Your task to perform on an android device: turn notification dots on Image 0: 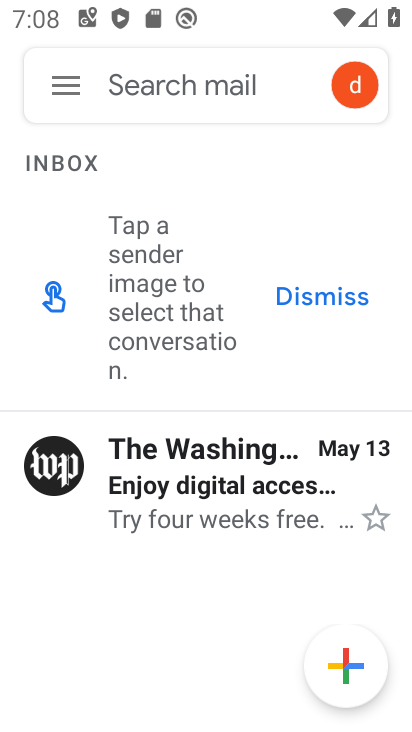
Step 0: press home button
Your task to perform on an android device: turn notification dots on Image 1: 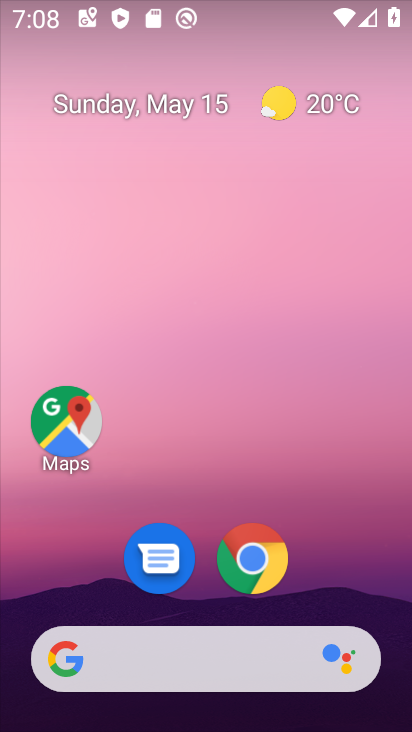
Step 1: drag from (189, 454) to (123, 50)
Your task to perform on an android device: turn notification dots on Image 2: 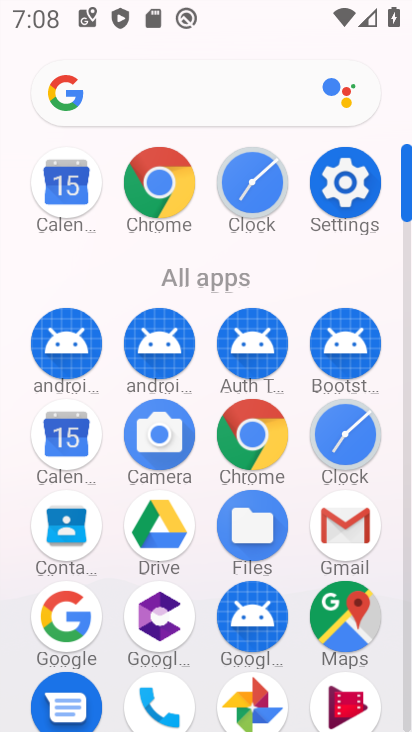
Step 2: click (348, 179)
Your task to perform on an android device: turn notification dots on Image 3: 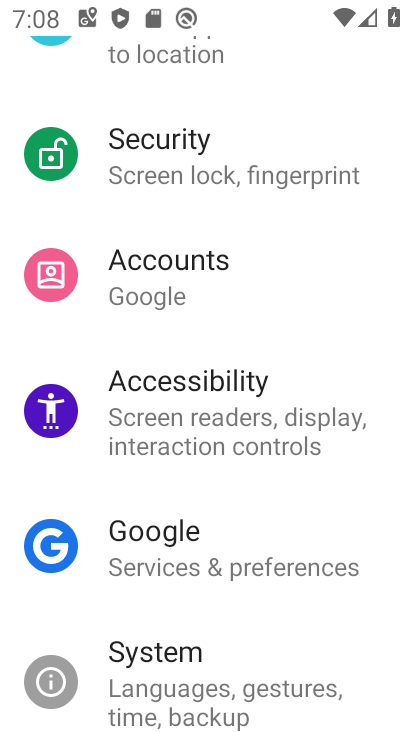
Step 3: drag from (237, 321) to (202, 731)
Your task to perform on an android device: turn notification dots on Image 4: 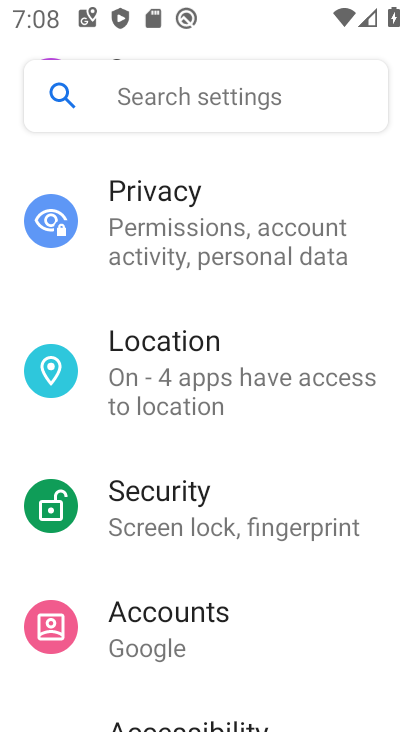
Step 4: drag from (161, 303) to (131, 603)
Your task to perform on an android device: turn notification dots on Image 5: 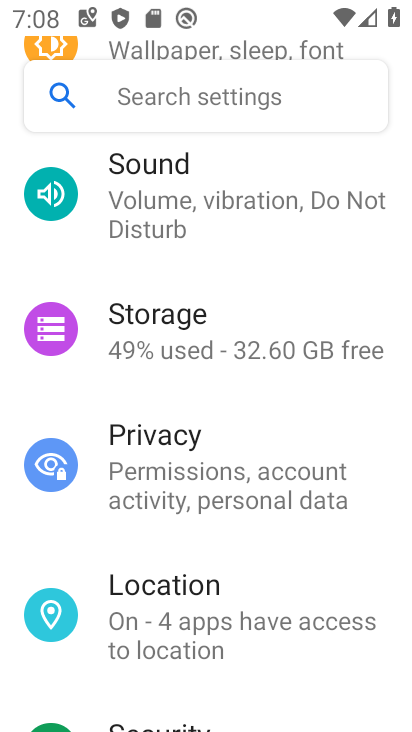
Step 5: drag from (171, 275) to (226, 723)
Your task to perform on an android device: turn notification dots on Image 6: 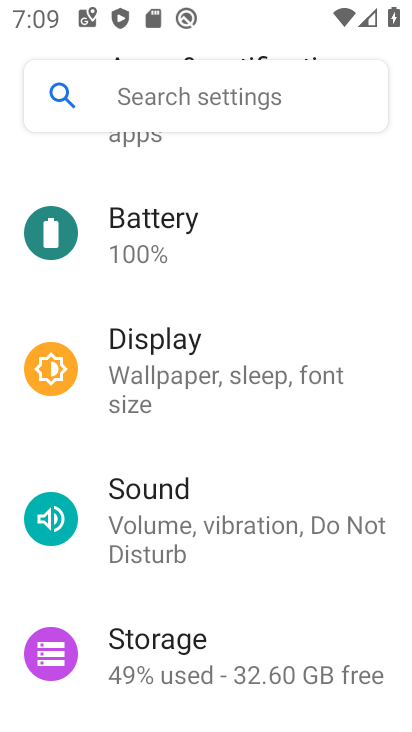
Step 6: drag from (147, 291) to (177, 730)
Your task to perform on an android device: turn notification dots on Image 7: 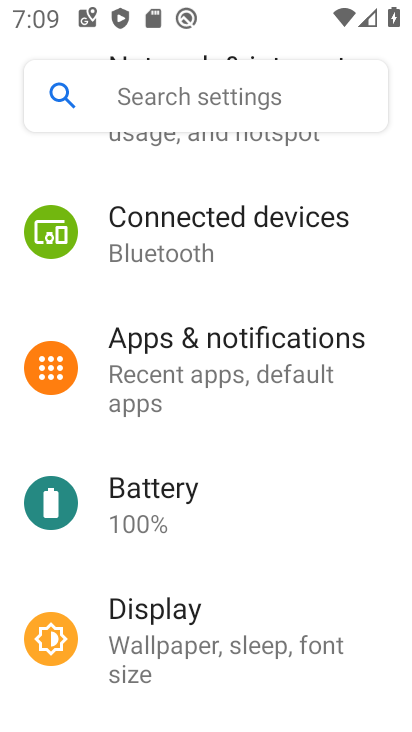
Step 7: click (228, 340)
Your task to perform on an android device: turn notification dots on Image 8: 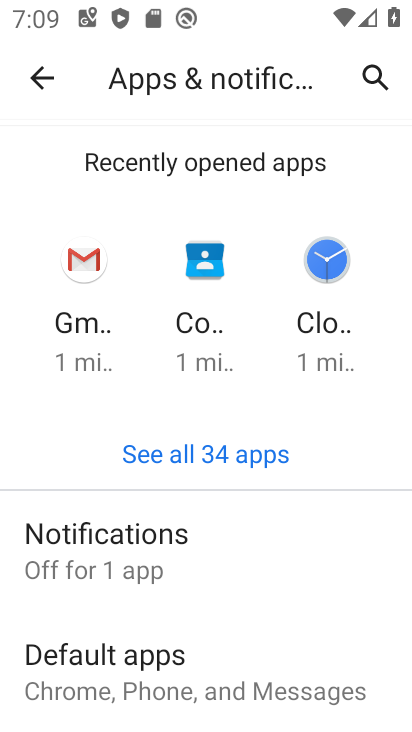
Step 8: drag from (247, 541) to (213, 310)
Your task to perform on an android device: turn notification dots on Image 9: 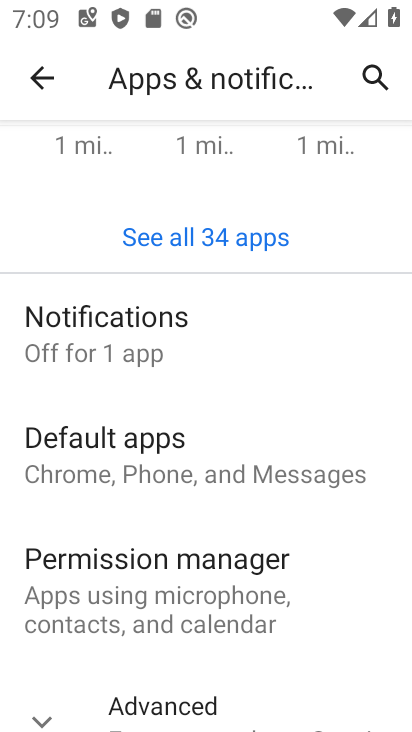
Step 9: click (108, 316)
Your task to perform on an android device: turn notification dots on Image 10: 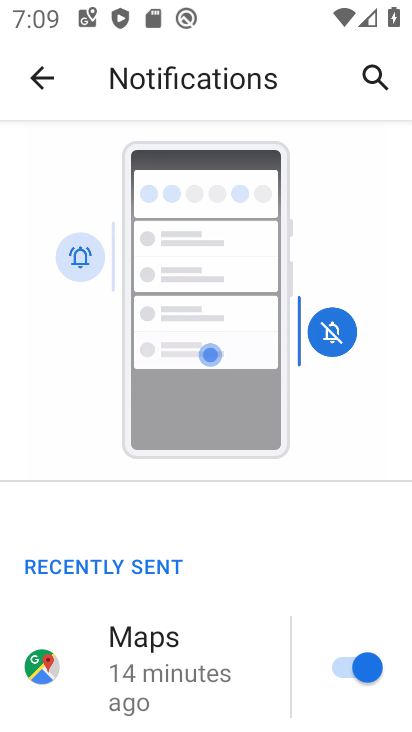
Step 10: drag from (203, 564) to (123, 200)
Your task to perform on an android device: turn notification dots on Image 11: 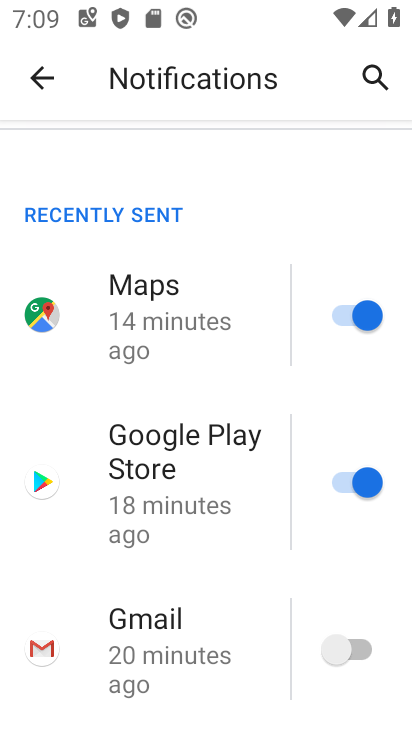
Step 11: drag from (249, 552) to (217, 265)
Your task to perform on an android device: turn notification dots on Image 12: 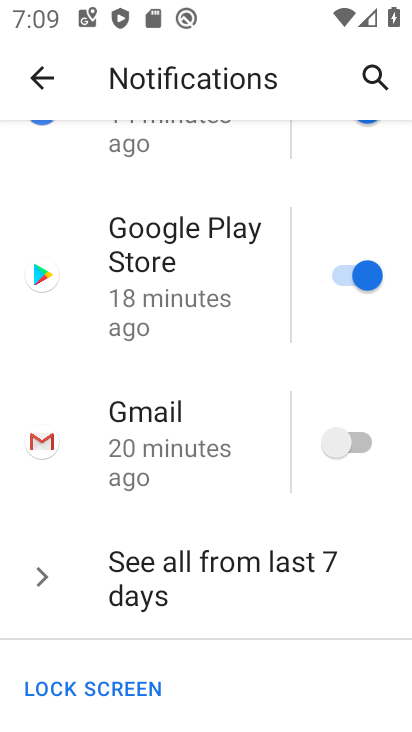
Step 12: drag from (247, 605) to (193, 203)
Your task to perform on an android device: turn notification dots on Image 13: 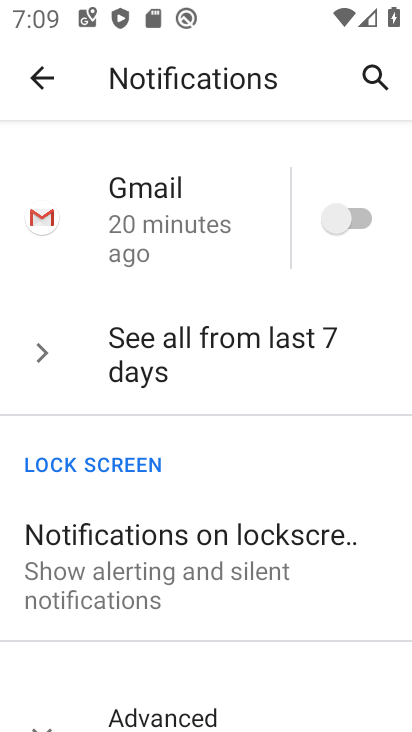
Step 13: drag from (252, 599) to (199, 243)
Your task to perform on an android device: turn notification dots on Image 14: 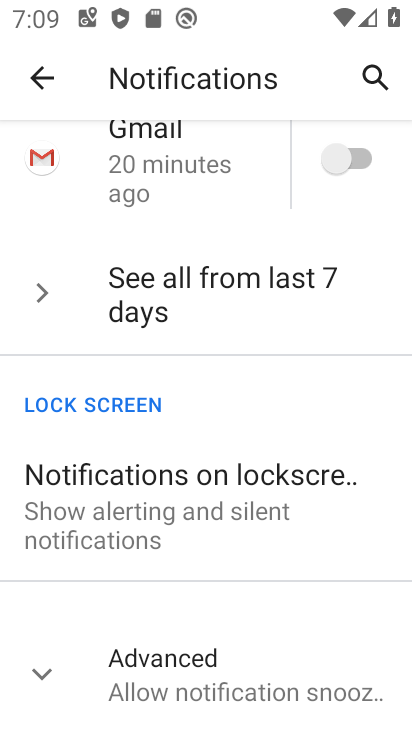
Step 14: click (45, 679)
Your task to perform on an android device: turn notification dots on Image 15: 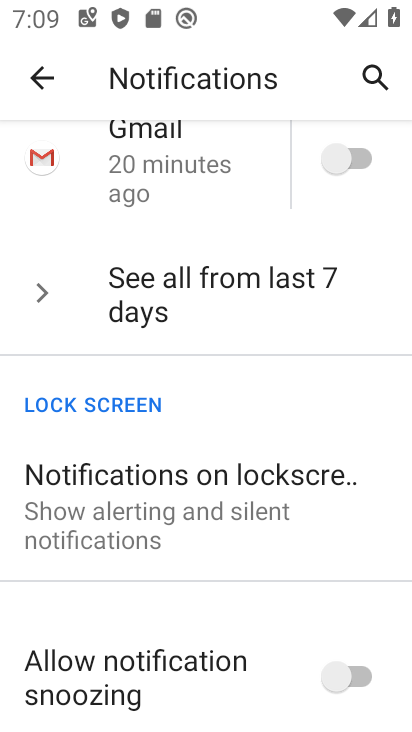
Step 15: task complete